Your task to perform on an android device: delete the emails in spam in the gmail app Image 0: 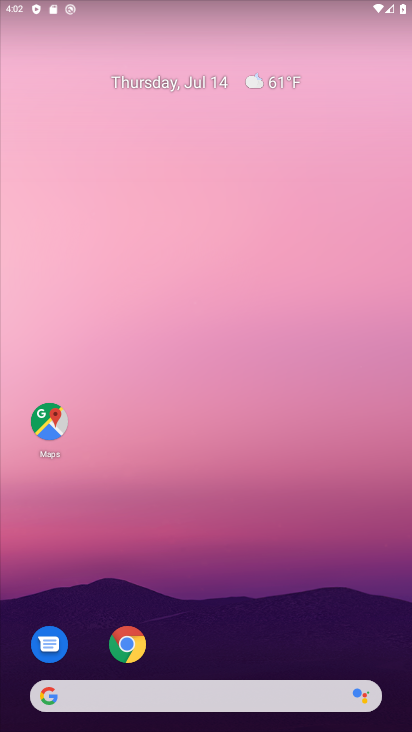
Step 0: drag from (253, 694) to (335, 22)
Your task to perform on an android device: delete the emails in spam in the gmail app Image 1: 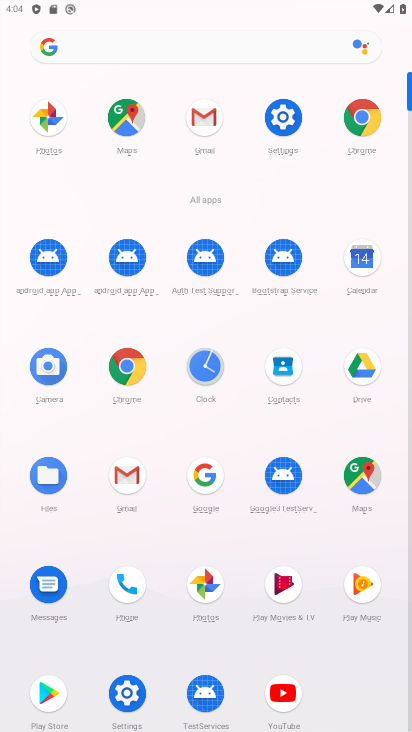
Step 1: click (148, 475)
Your task to perform on an android device: delete the emails in spam in the gmail app Image 2: 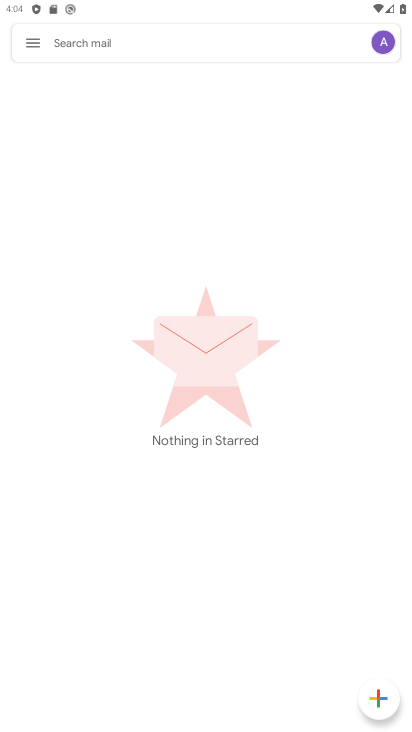
Step 2: click (26, 43)
Your task to perform on an android device: delete the emails in spam in the gmail app Image 3: 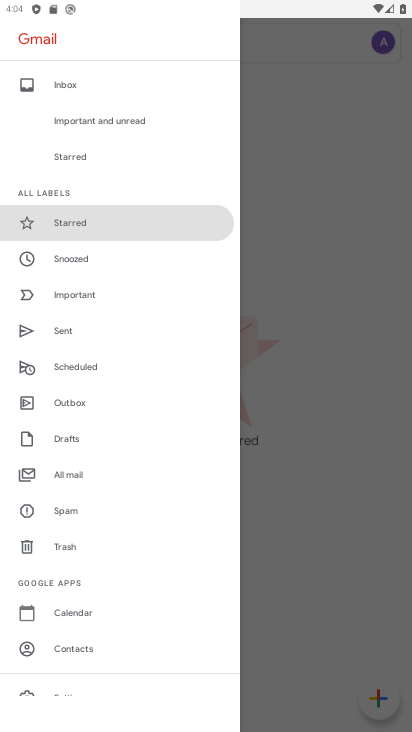
Step 3: click (346, 278)
Your task to perform on an android device: delete the emails in spam in the gmail app Image 4: 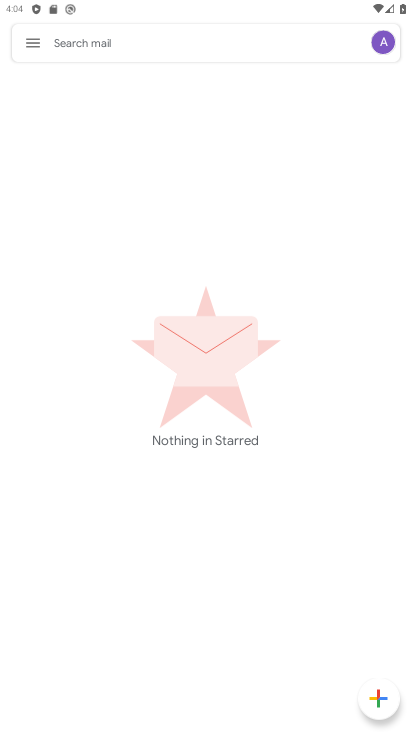
Step 4: task complete